Your task to perform on an android device: read, delete, or share a saved page in the chrome app Image 0: 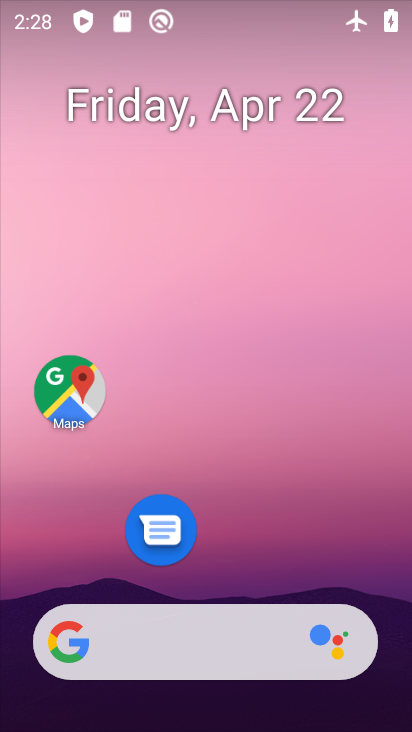
Step 0: drag from (218, 378) to (222, 9)
Your task to perform on an android device: read, delete, or share a saved page in the chrome app Image 1: 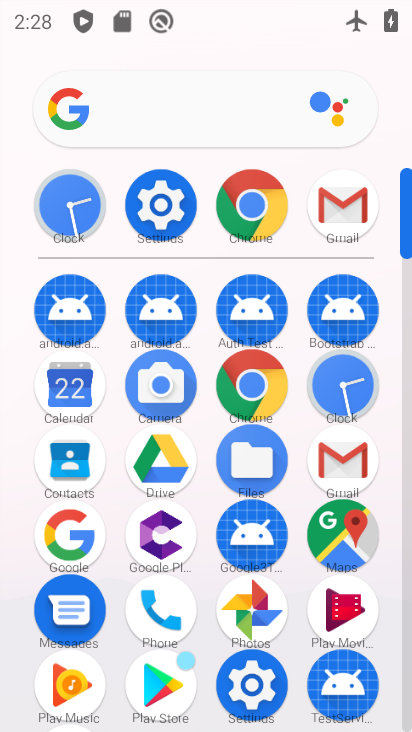
Step 1: click (253, 216)
Your task to perform on an android device: read, delete, or share a saved page in the chrome app Image 2: 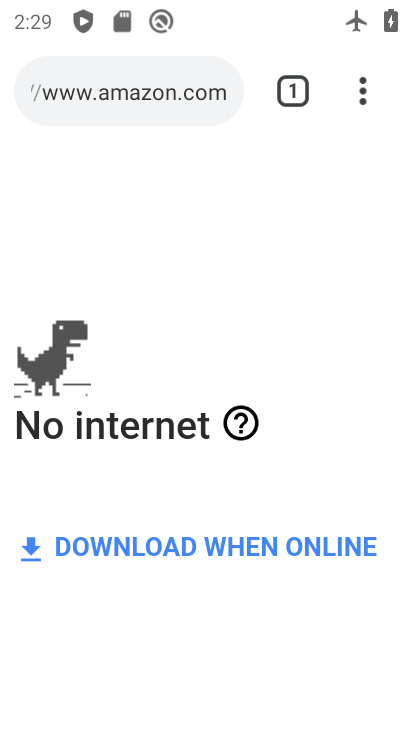
Step 2: click (359, 96)
Your task to perform on an android device: read, delete, or share a saved page in the chrome app Image 3: 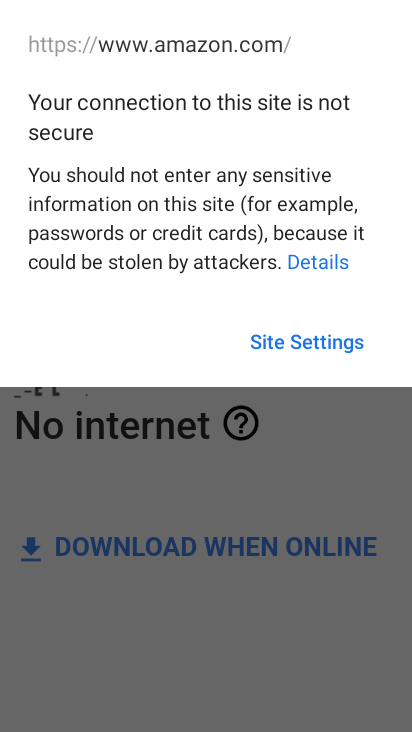
Step 3: click (291, 415)
Your task to perform on an android device: read, delete, or share a saved page in the chrome app Image 4: 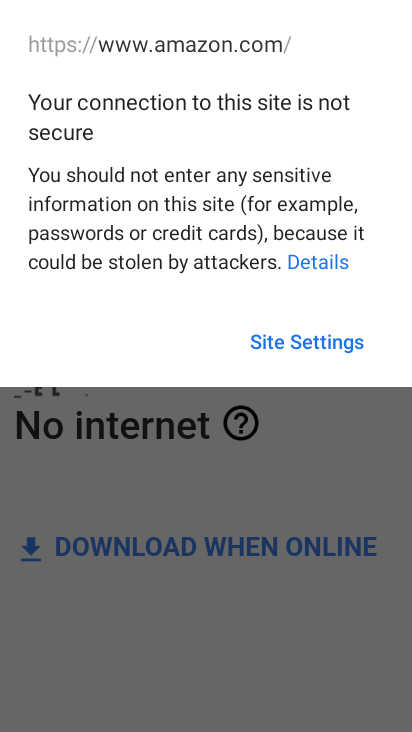
Step 4: click (327, 424)
Your task to perform on an android device: read, delete, or share a saved page in the chrome app Image 5: 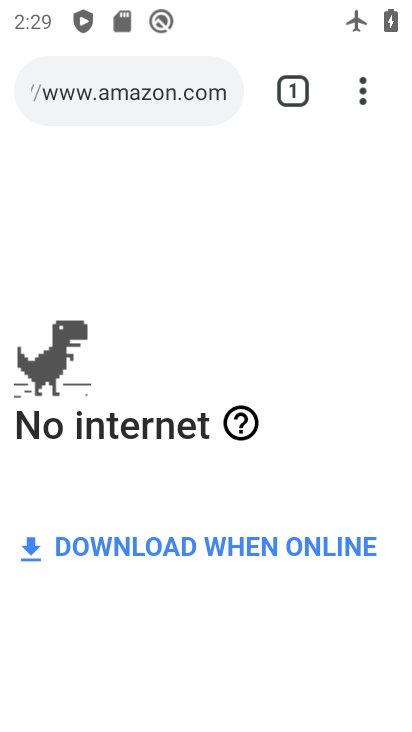
Step 5: click (369, 92)
Your task to perform on an android device: read, delete, or share a saved page in the chrome app Image 6: 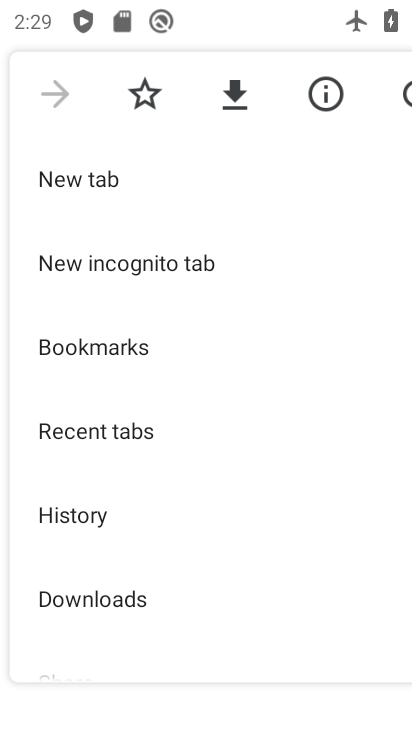
Step 6: click (98, 597)
Your task to perform on an android device: read, delete, or share a saved page in the chrome app Image 7: 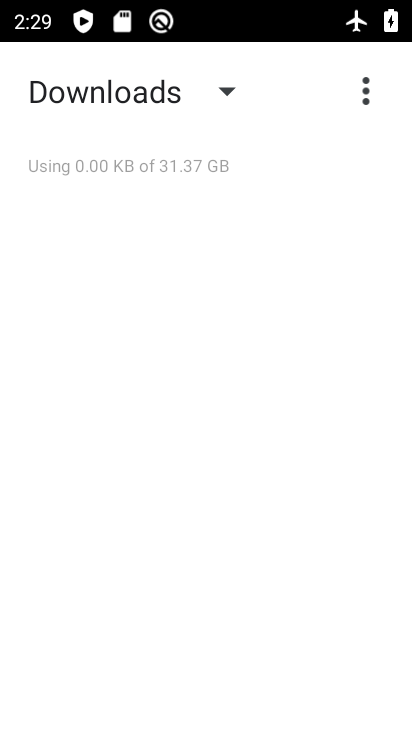
Step 7: task complete